Your task to perform on an android device: empty trash in the gmail app Image 0: 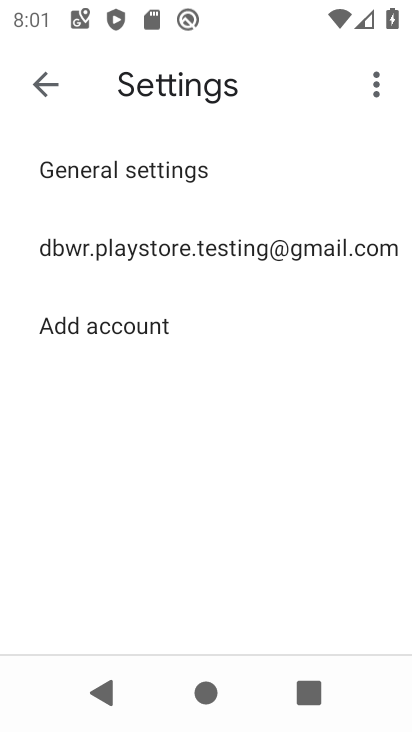
Step 0: press home button
Your task to perform on an android device: empty trash in the gmail app Image 1: 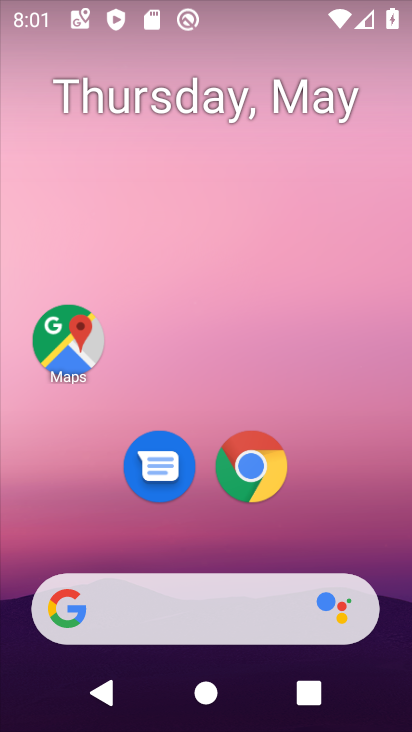
Step 1: drag from (341, 563) to (336, 1)
Your task to perform on an android device: empty trash in the gmail app Image 2: 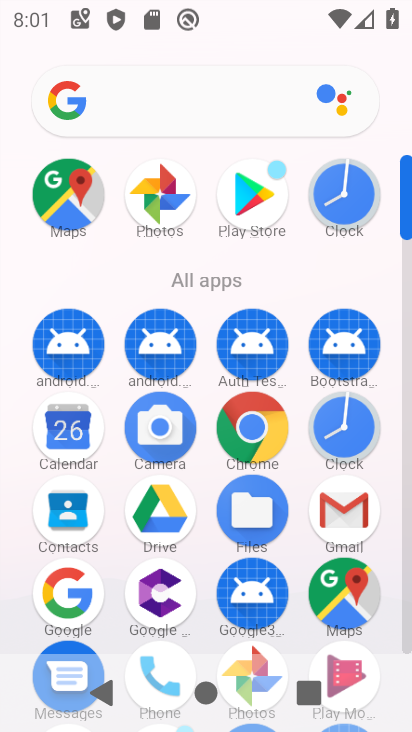
Step 2: click (336, 521)
Your task to perform on an android device: empty trash in the gmail app Image 3: 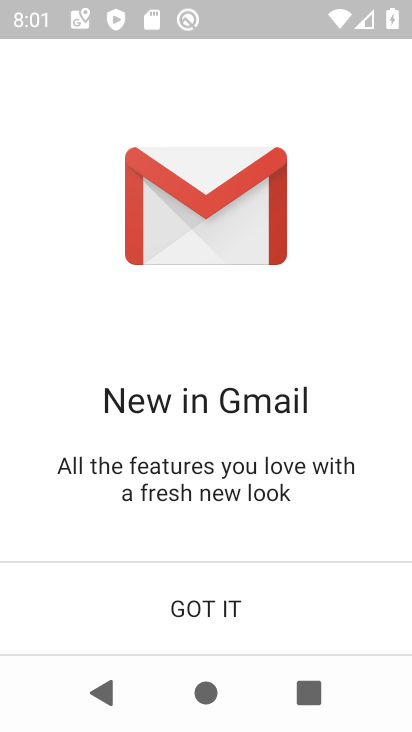
Step 3: click (197, 616)
Your task to perform on an android device: empty trash in the gmail app Image 4: 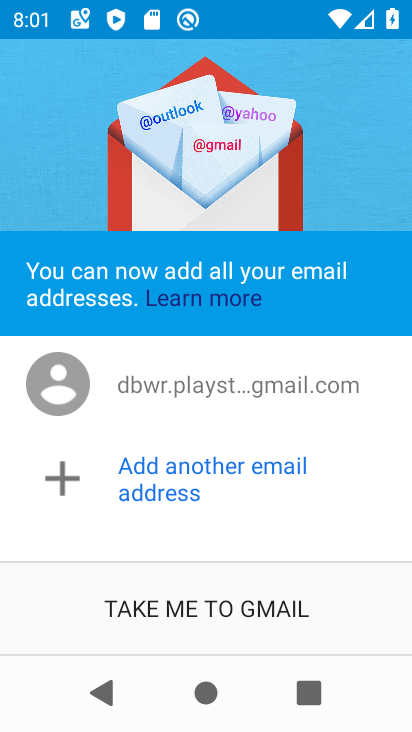
Step 4: click (195, 610)
Your task to perform on an android device: empty trash in the gmail app Image 5: 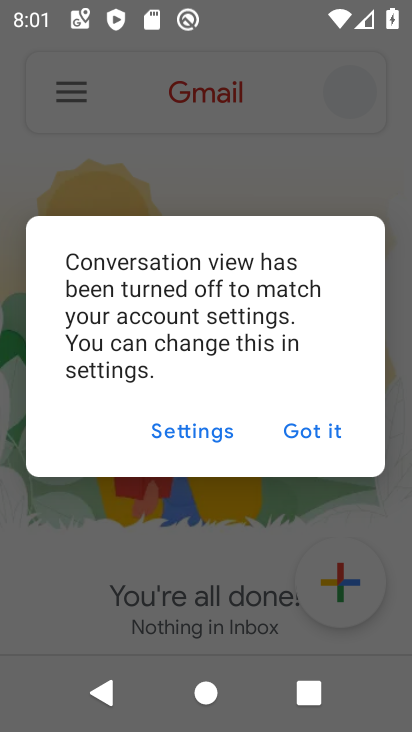
Step 5: click (295, 424)
Your task to perform on an android device: empty trash in the gmail app Image 6: 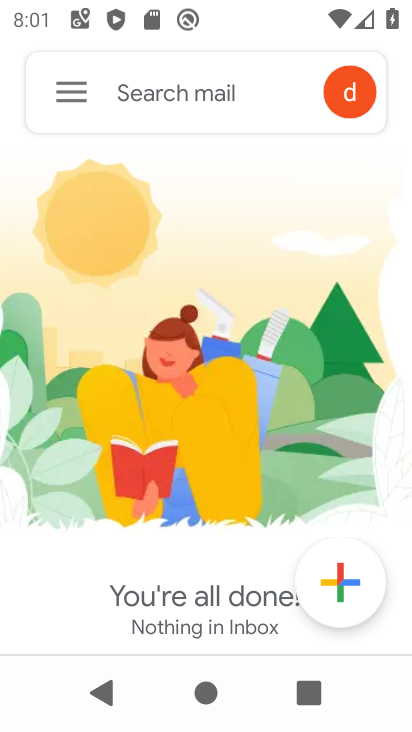
Step 6: click (67, 95)
Your task to perform on an android device: empty trash in the gmail app Image 7: 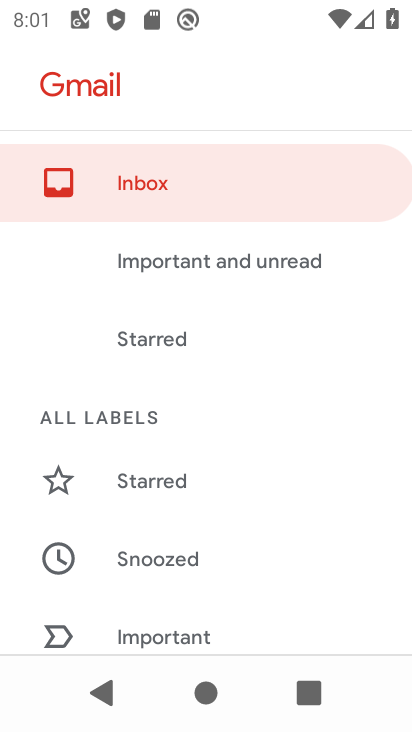
Step 7: drag from (216, 512) to (221, 107)
Your task to perform on an android device: empty trash in the gmail app Image 8: 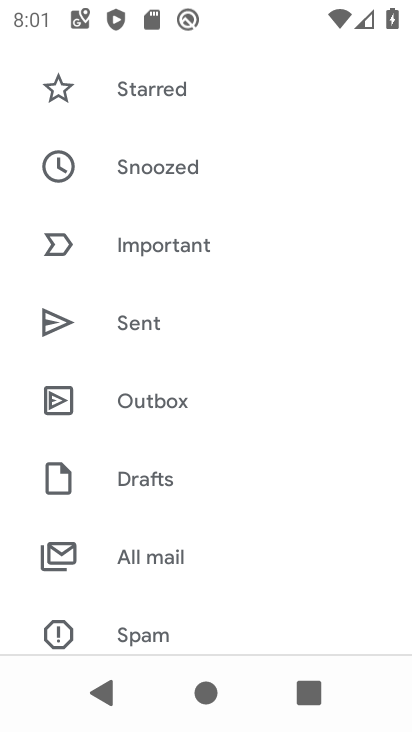
Step 8: drag from (232, 541) to (232, 238)
Your task to perform on an android device: empty trash in the gmail app Image 9: 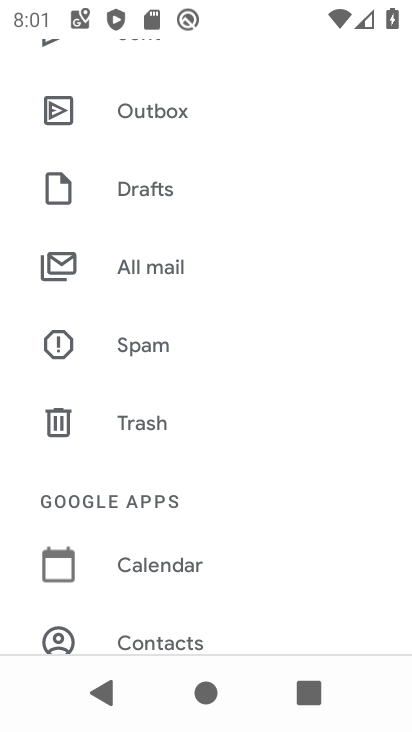
Step 9: click (125, 428)
Your task to perform on an android device: empty trash in the gmail app Image 10: 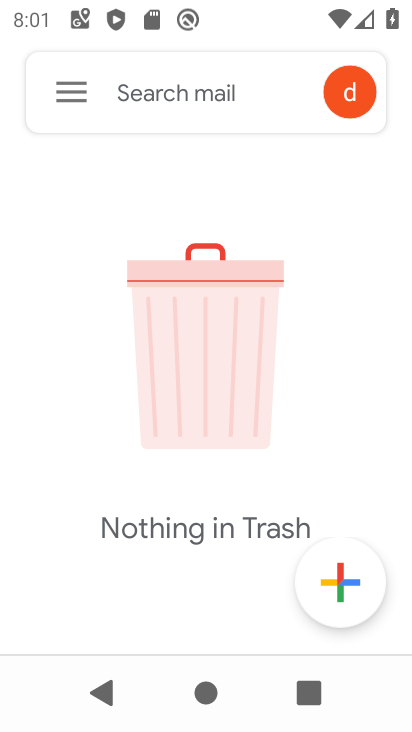
Step 10: task complete